Your task to perform on an android device: open the mobile data screen to see how much data has been used Image 0: 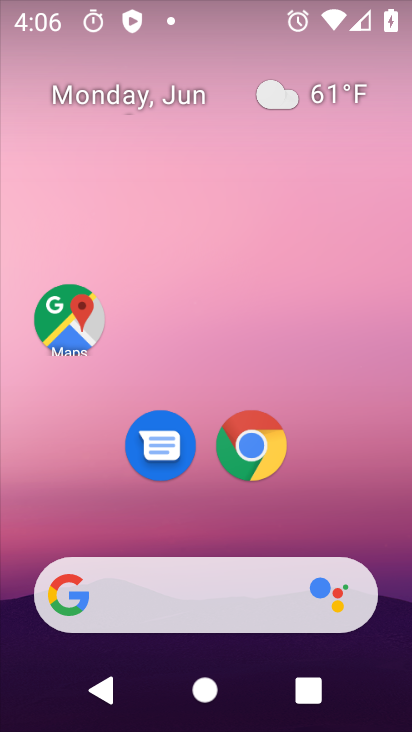
Step 0: drag from (216, 525) to (184, 68)
Your task to perform on an android device: open the mobile data screen to see how much data has been used Image 1: 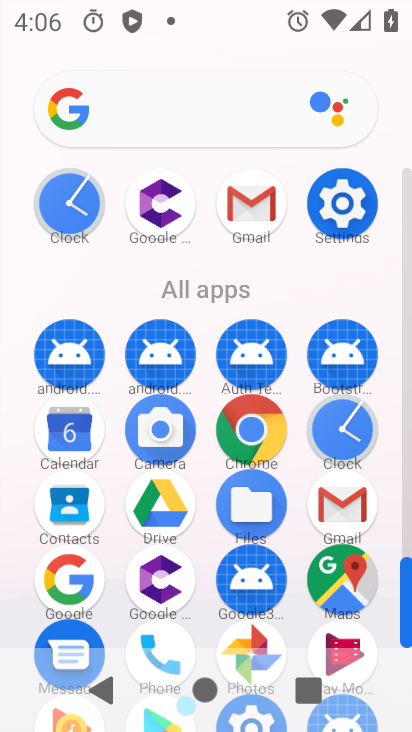
Step 1: click (343, 206)
Your task to perform on an android device: open the mobile data screen to see how much data has been used Image 2: 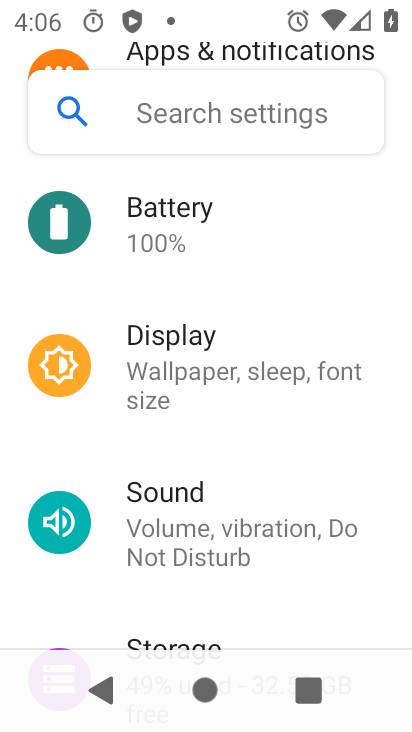
Step 2: drag from (257, 263) to (249, 551)
Your task to perform on an android device: open the mobile data screen to see how much data has been used Image 3: 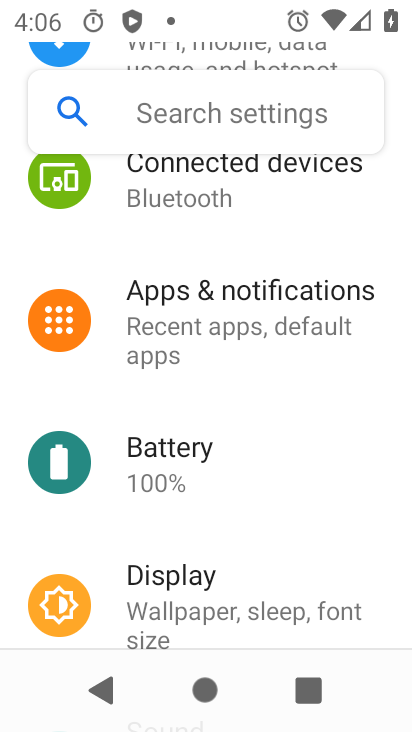
Step 3: drag from (217, 326) to (220, 566)
Your task to perform on an android device: open the mobile data screen to see how much data has been used Image 4: 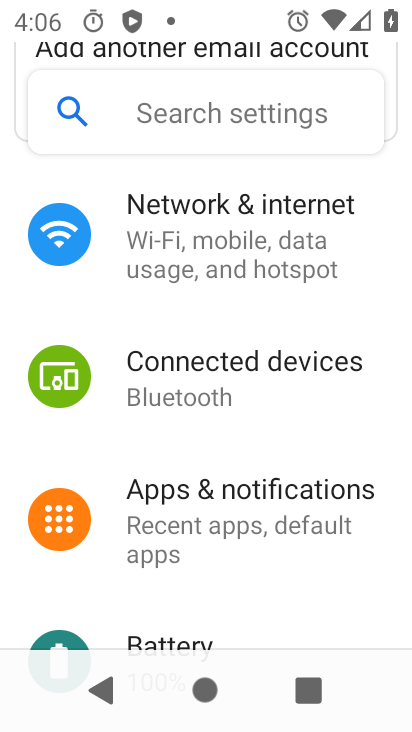
Step 4: click (221, 265)
Your task to perform on an android device: open the mobile data screen to see how much data has been used Image 5: 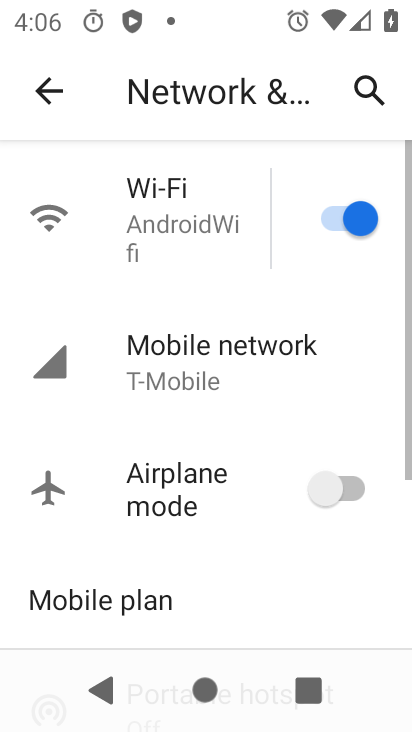
Step 5: click (217, 393)
Your task to perform on an android device: open the mobile data screen to see how much data has been used Image 6: 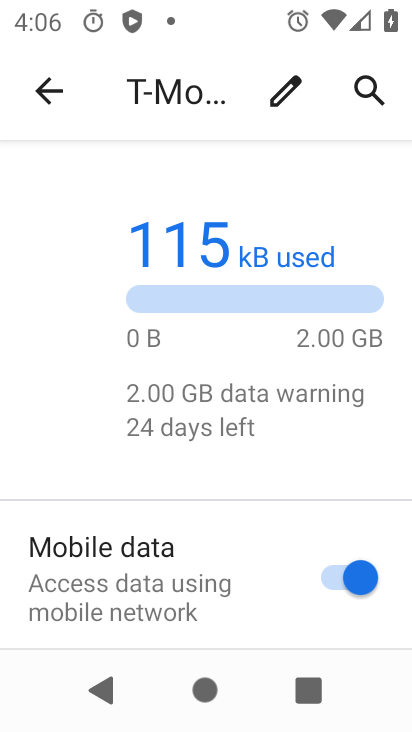
Step 6: task complete